Your task to perform on an android device: turn pop-ups off in chrome Image 0: 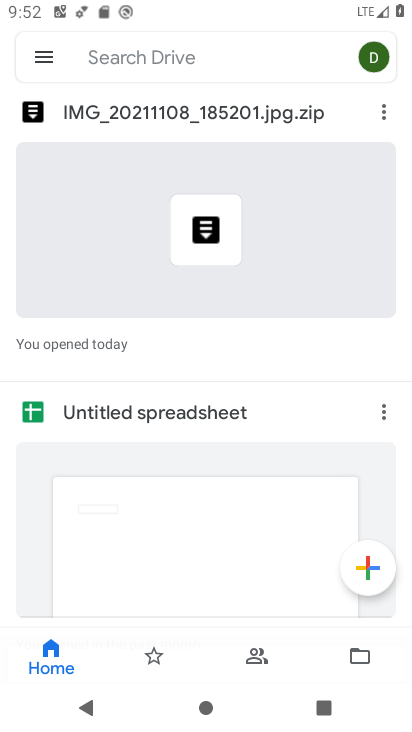
Step 0: press home button
Your task to perform on an android device: turn pop-ups off in chrome Image 1: 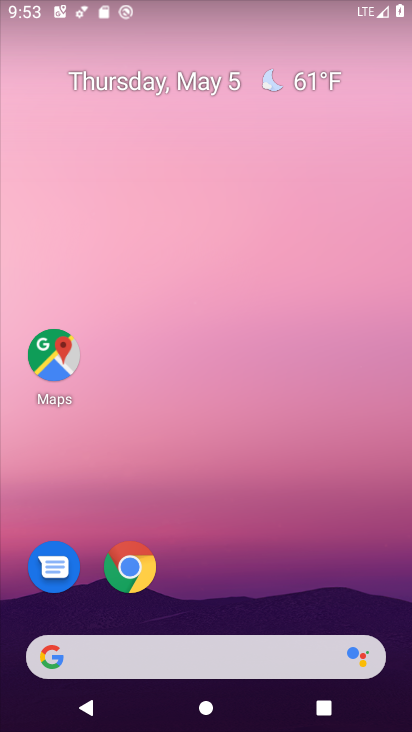
Step 1: click (132, 574)
Your task to perform on an android device: turn pop-ups off in chrome Image 2: 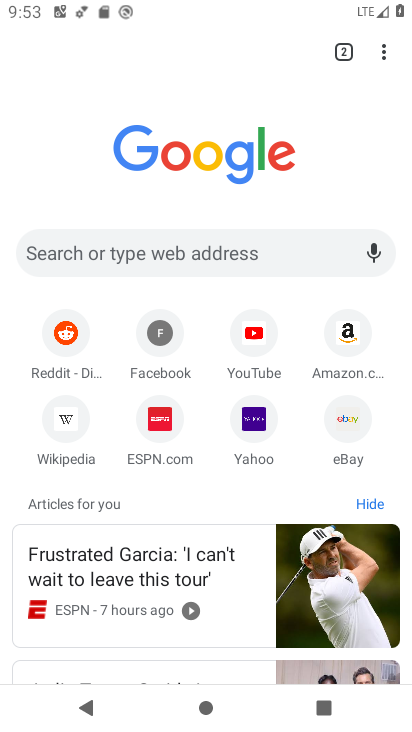
Step 2: click (133, 574)
Your task to perform on an android device: turn pop-ups off in chrome Image 3: 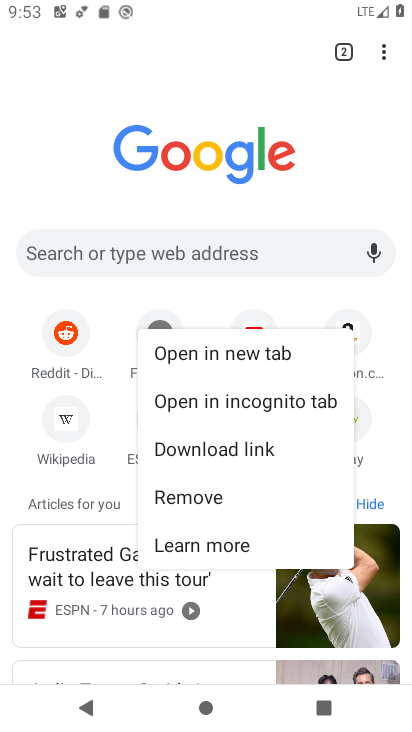
Step 3: click (384, 44)
Your task to perform on an android device: turn pop-ups off in chrome Image 4: 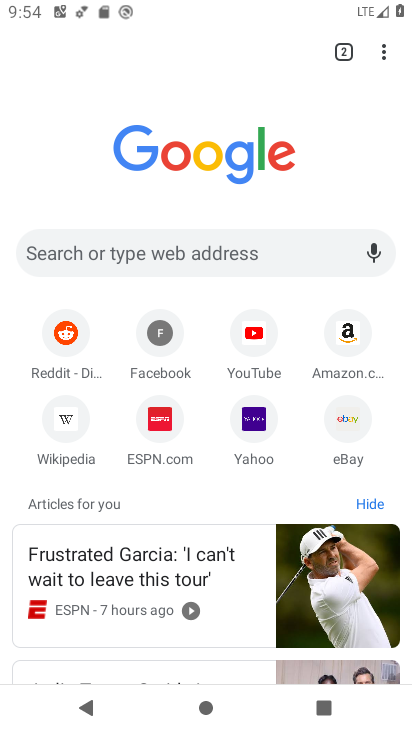
Step 4: click (389, 51)
Your task to perform on an android device: turn pop-ups off in chrome Image 5: 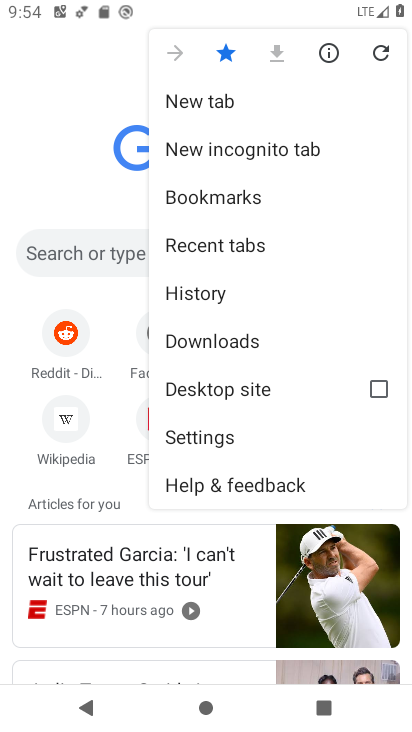
Step 5: click (213, 432)
Your task to perform on an android device: turn pop-ups off in chrome Image 6: 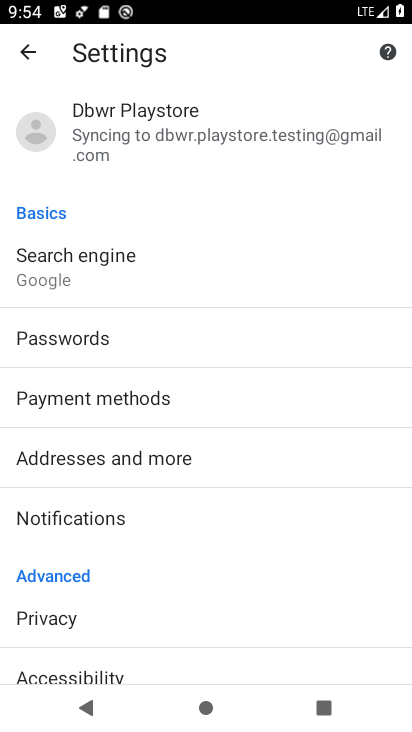
Step 6: drag from (170, 636) to (204, 332)
Your task to perform on an android device: turn pop-ups off in chrome Image 7: 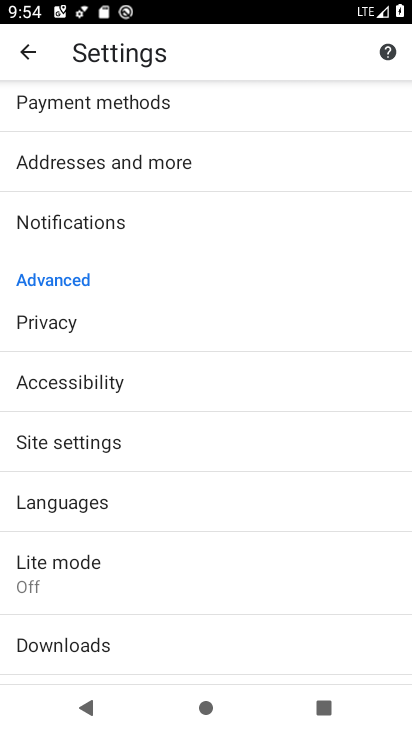
Step 7: click (133, 434)
Your task to perform on an android device: turn pop-ups off in chrome Image 8: 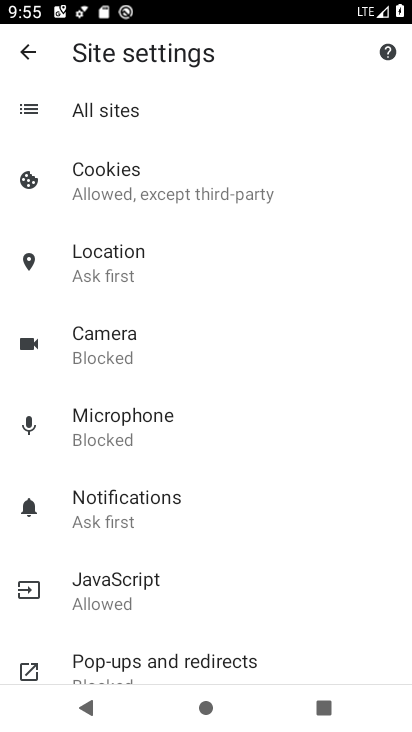
Step 8: click (185, 659)
Your task to perform on an android device: turn pop-ups off in chrome Image 9: 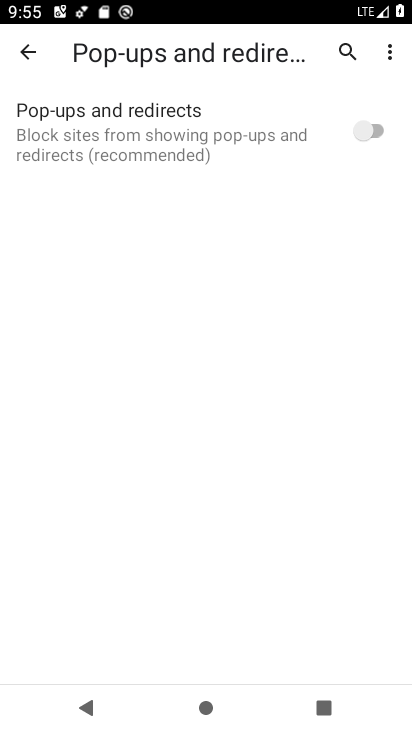
Step 9: task complete